Your task to perform on an android device: open app "eBay: The shopping marketplace" (install if not already installed) and go to login screen Image 0: 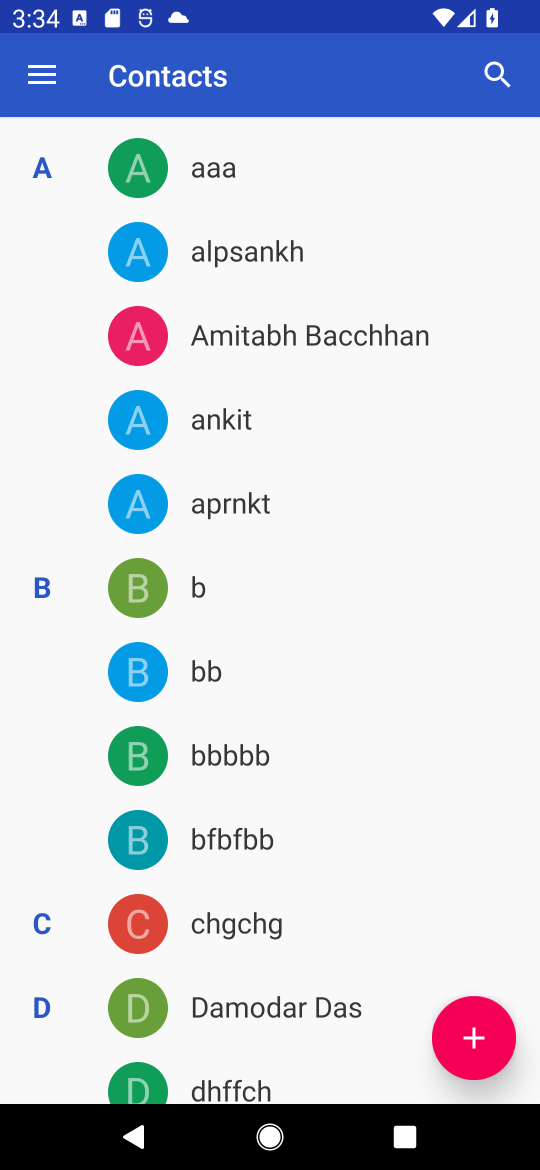
Step 0: press home button
Your task to perform on an android device: open app "eBay: The shopping marketplace" (install if not already installed) and go to login screen Image 1: 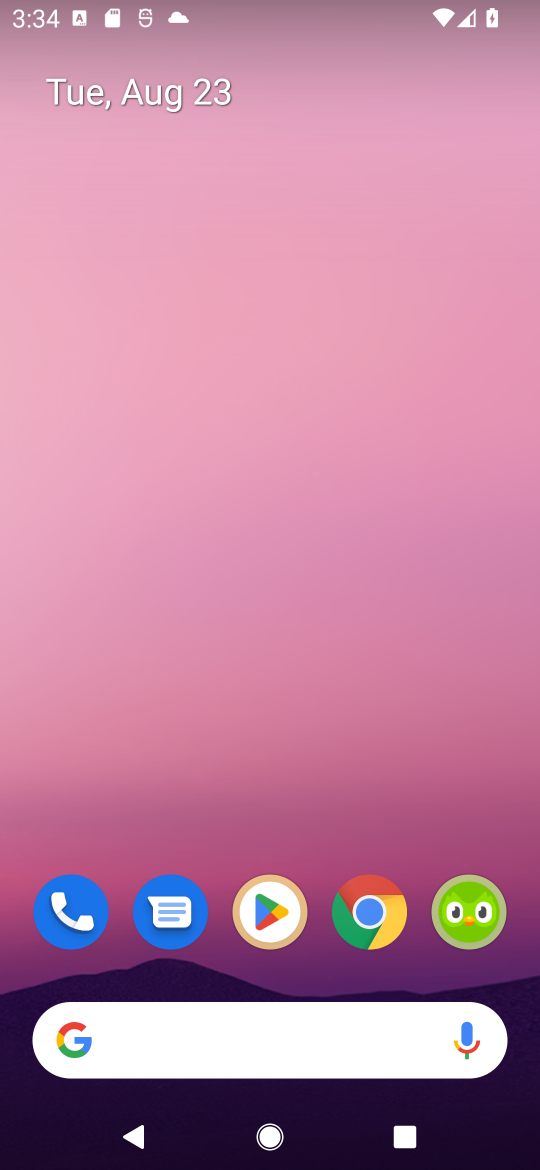
Step 1: drag from (300, 1065) to (387, 258)
Your task to perform on an android device: open app "eBay: The shopping marketplace" (install if not already installed) and go to login screen Image 2: 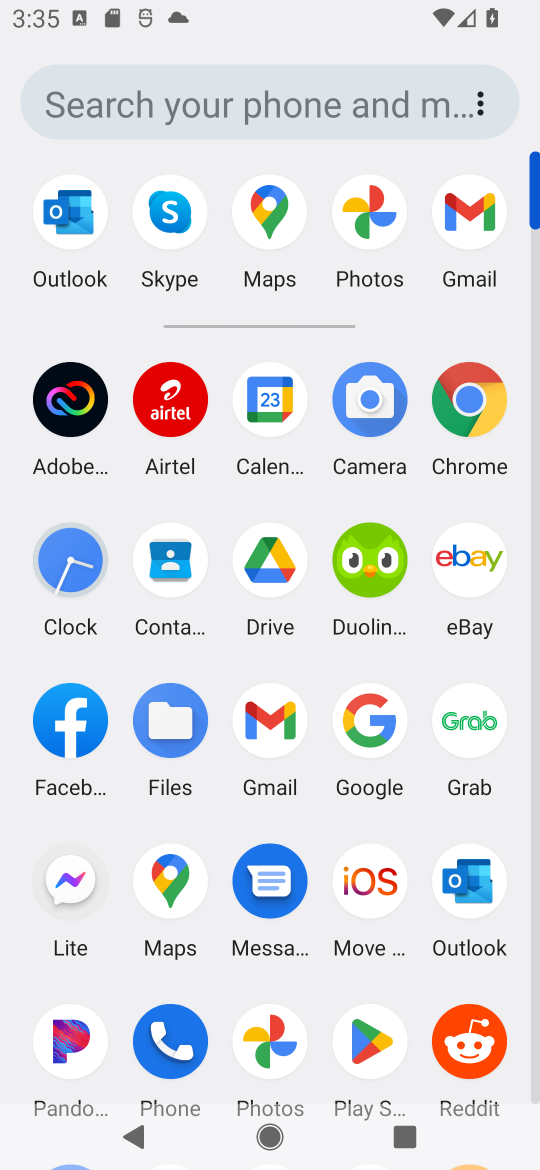
Step 2: click (370, 1042)
Your task to perform on an android device: open app "eBay: The shopping marketplace" (install if not already installed) and go to login screen Image 3: 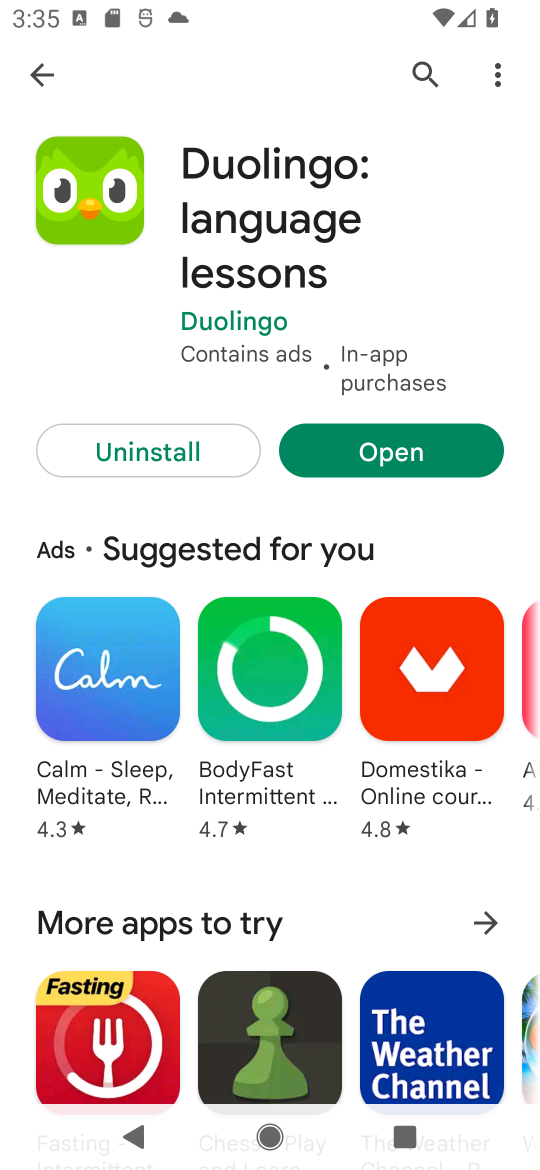
Step 3: press back button
Your task to perform on an android device: open app "eBay: The shopping marketplace" (install if not already installed) and go to login screen Image 4: 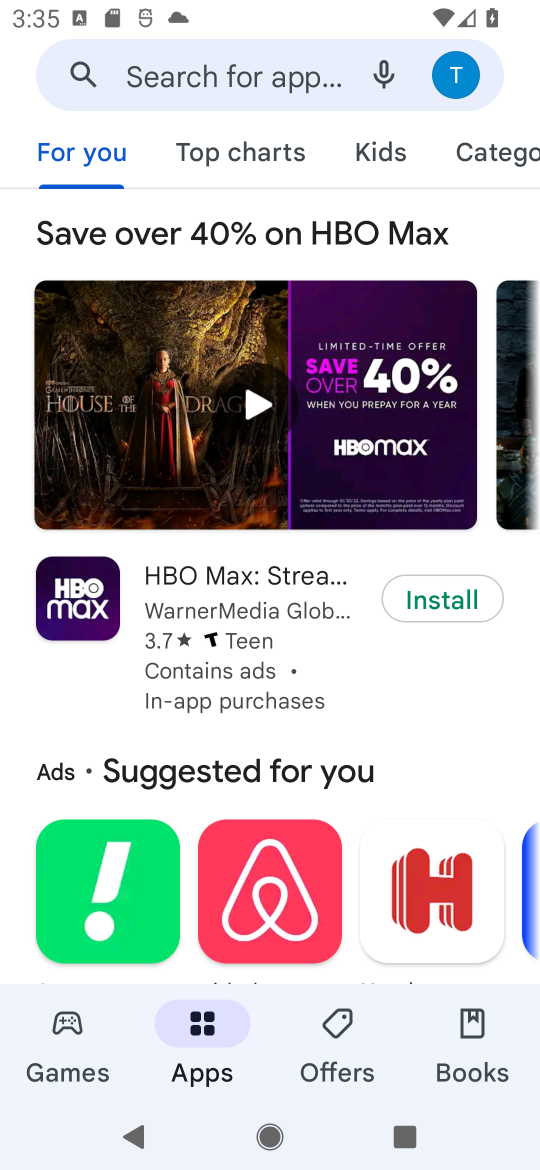
Step 4: click (258, 86)
Your task to perform on an android device: open app "eBay: The shopping marketplace" (install if not already installed) and go to login screen Image 5: 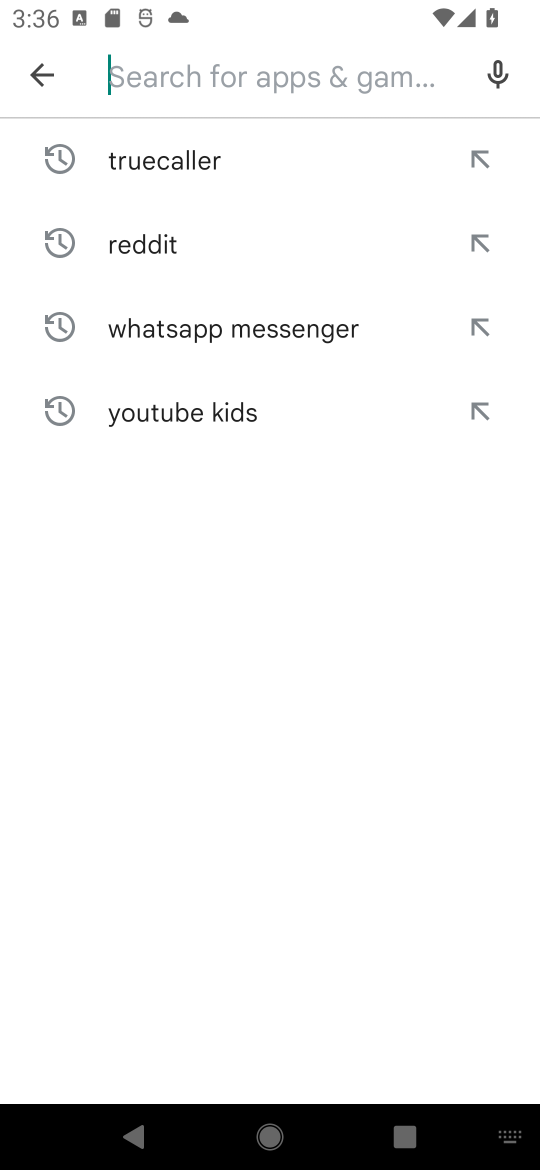
Step 5: type "eBay: The shopping marketplace"
Your task to perform on an android device: open app "eBay: The shopping marketplace" (install if not already installed) and go to login screen Image 6: 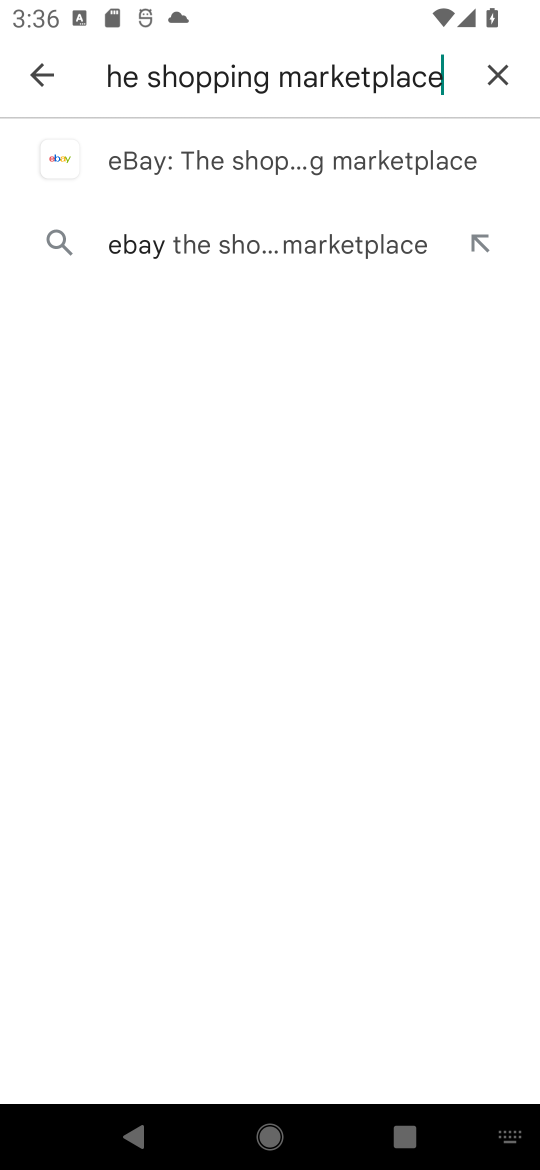
Step 6: click (196, 172)
Your task to perform on an android device: open app "eBay: The shopping marketplace" (install if not already installed) and go to login screen Image 7: 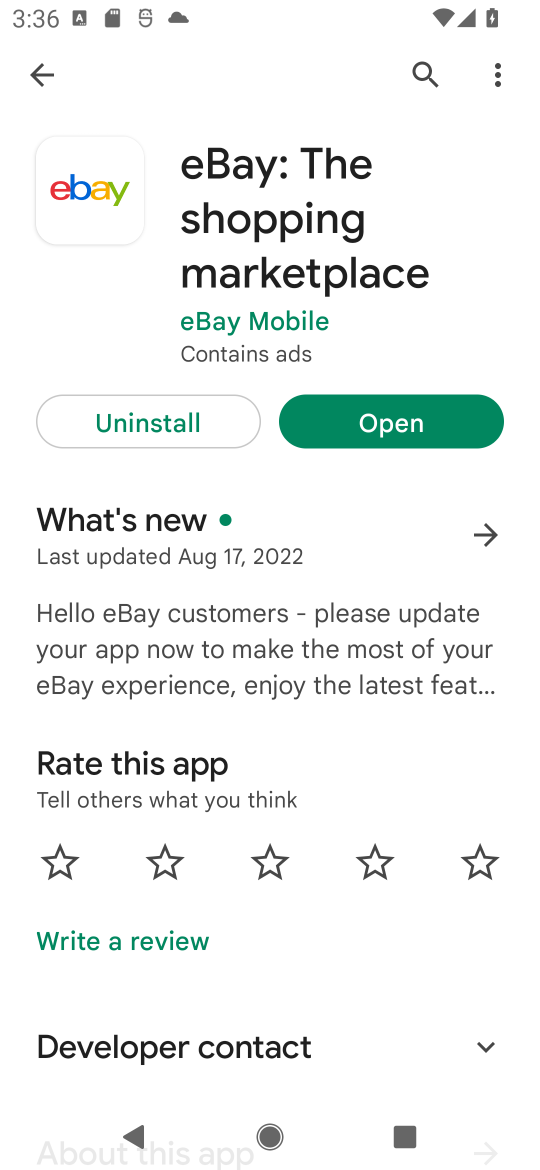
Step 7: click (427, 423)
Your task to perform on an android device: open app "eBay: The shopping marketplace" (install if not already installed) and go to login screen Image 8: 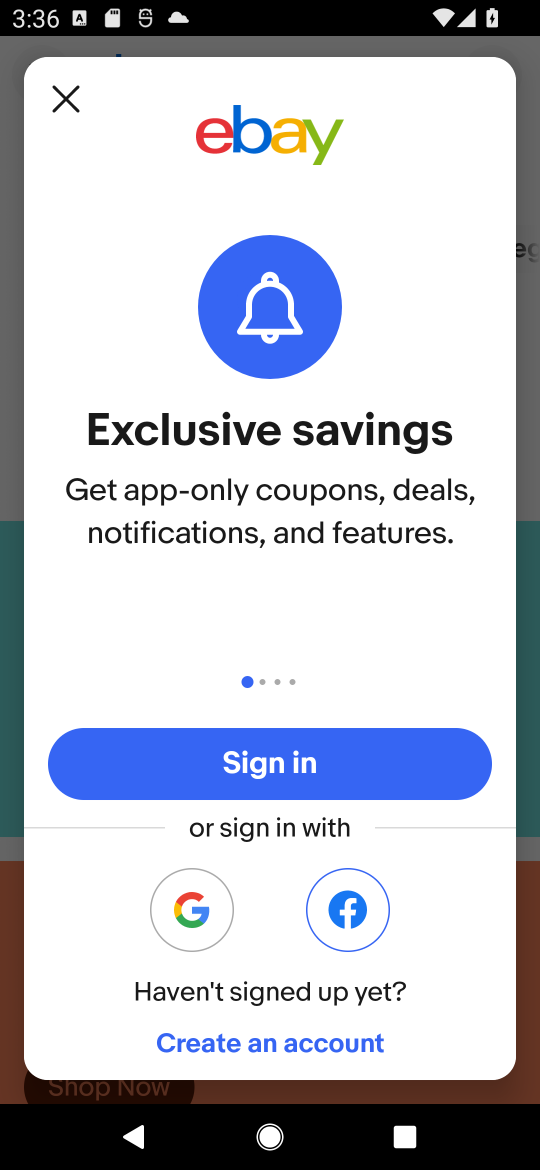
Step 8: task complete